Your task to perform on an android device: find snoozed emails in the gmail app Image 0: 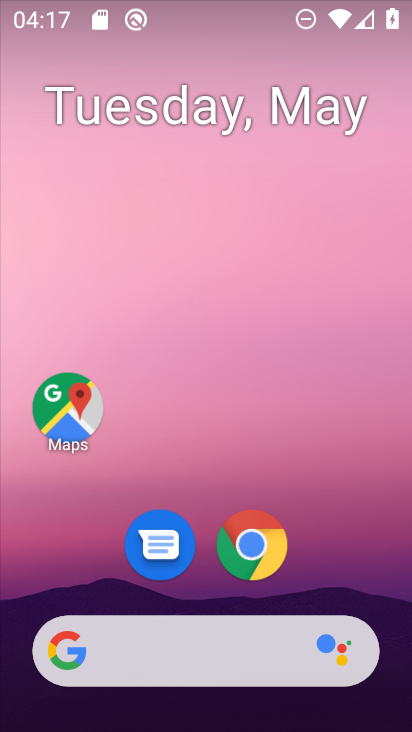
Step 0: drag from (380, 603) to (321, 76)
Your task to perform on an android device: find snoozed emails in the gmail app Image 1: 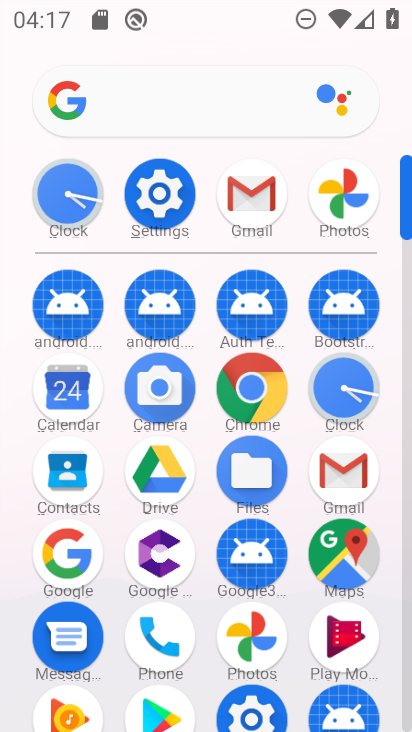
Step 1: click (341, 465)
Your task to perform on an android device: find snoozed emails in the gmail app Image 2: 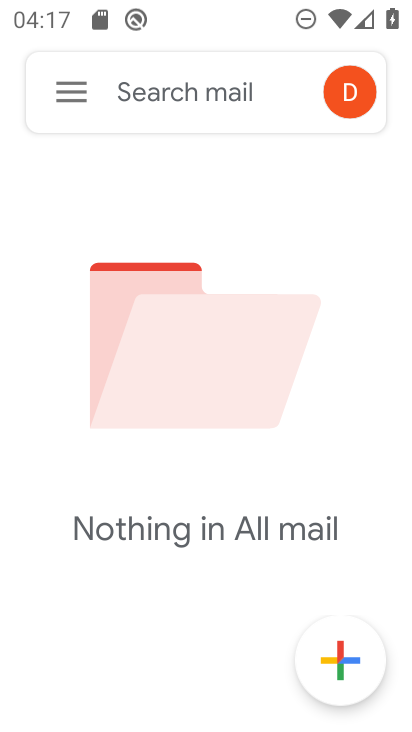
Step 2: click (65, 88)
Your task to perform on an android device: find snoozed emails in the gmail app Image 3: 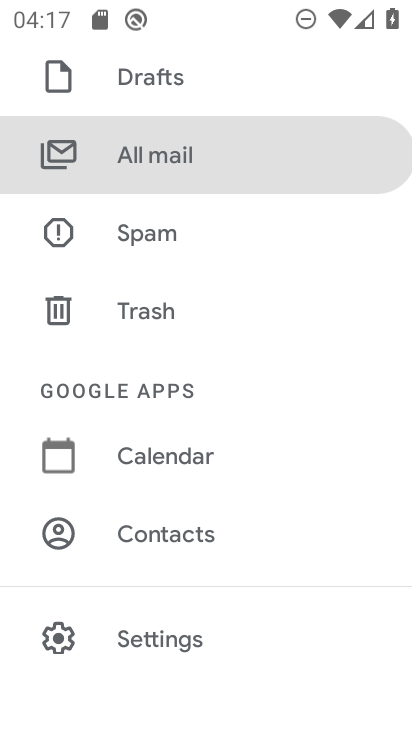
Step 3: drag from (225, 193) to (205, 554)
Your task to perform on an android device: find snoozed emails in the gmail app Image 4: 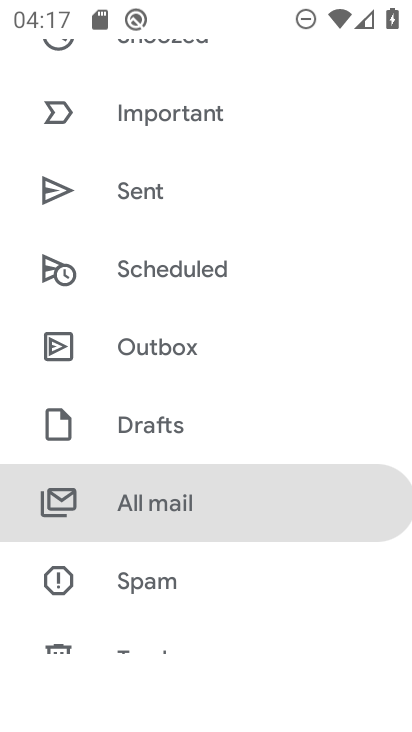
Step 4: drag from (272, 222) to (252, 542)
Your task to perform on an android device: find snoozed emails in the gmail app Image 5: 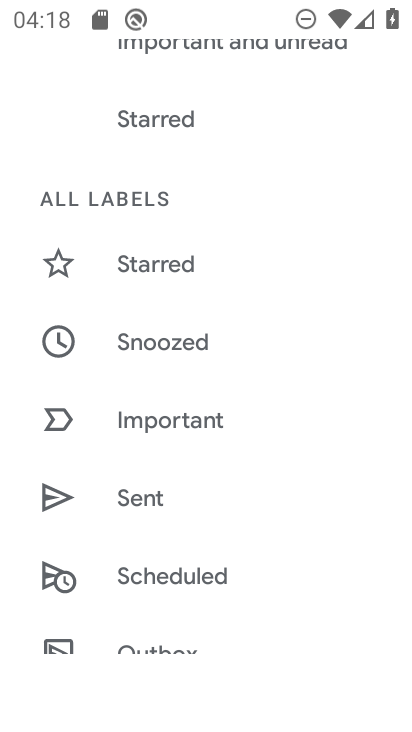
Step 5: click (156, 343)
Your task to perform on an android device: find snoozed emails in the gmail app Image 6: 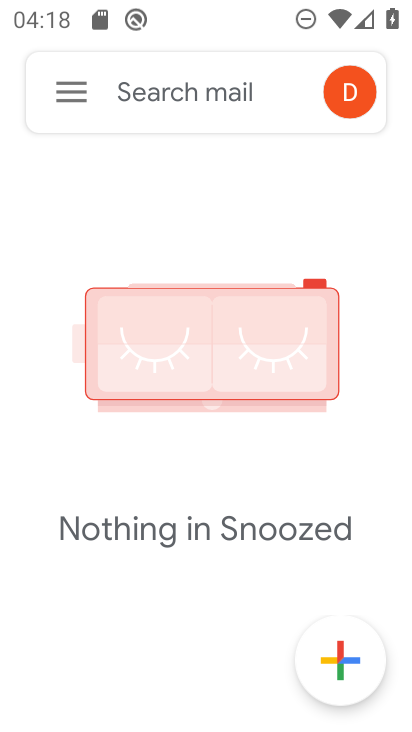
Step 6: task complete